Your task to perform on an android device: change the clock display to digital Image 0: 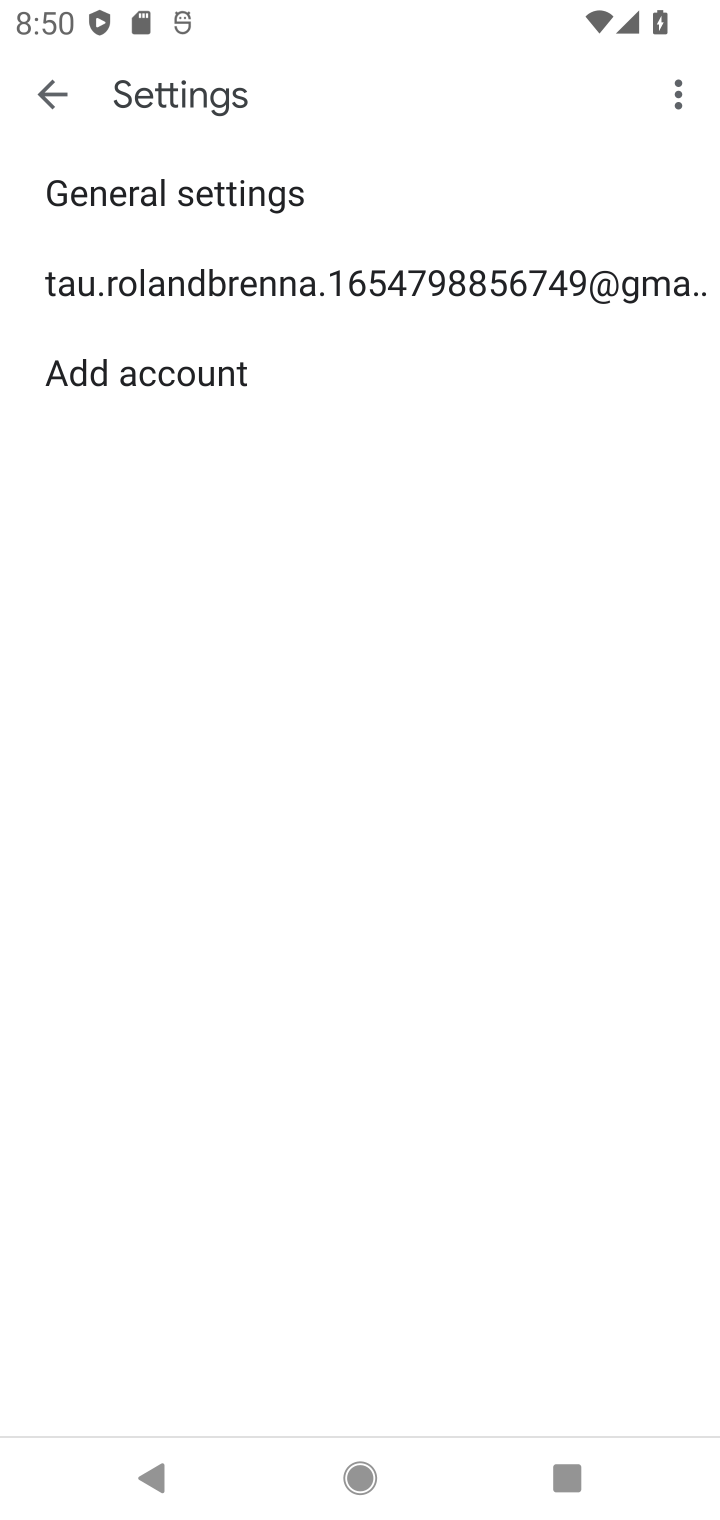
Step 0: press home button
Your task to perform on an android device: change the clock display to digital Image 1: 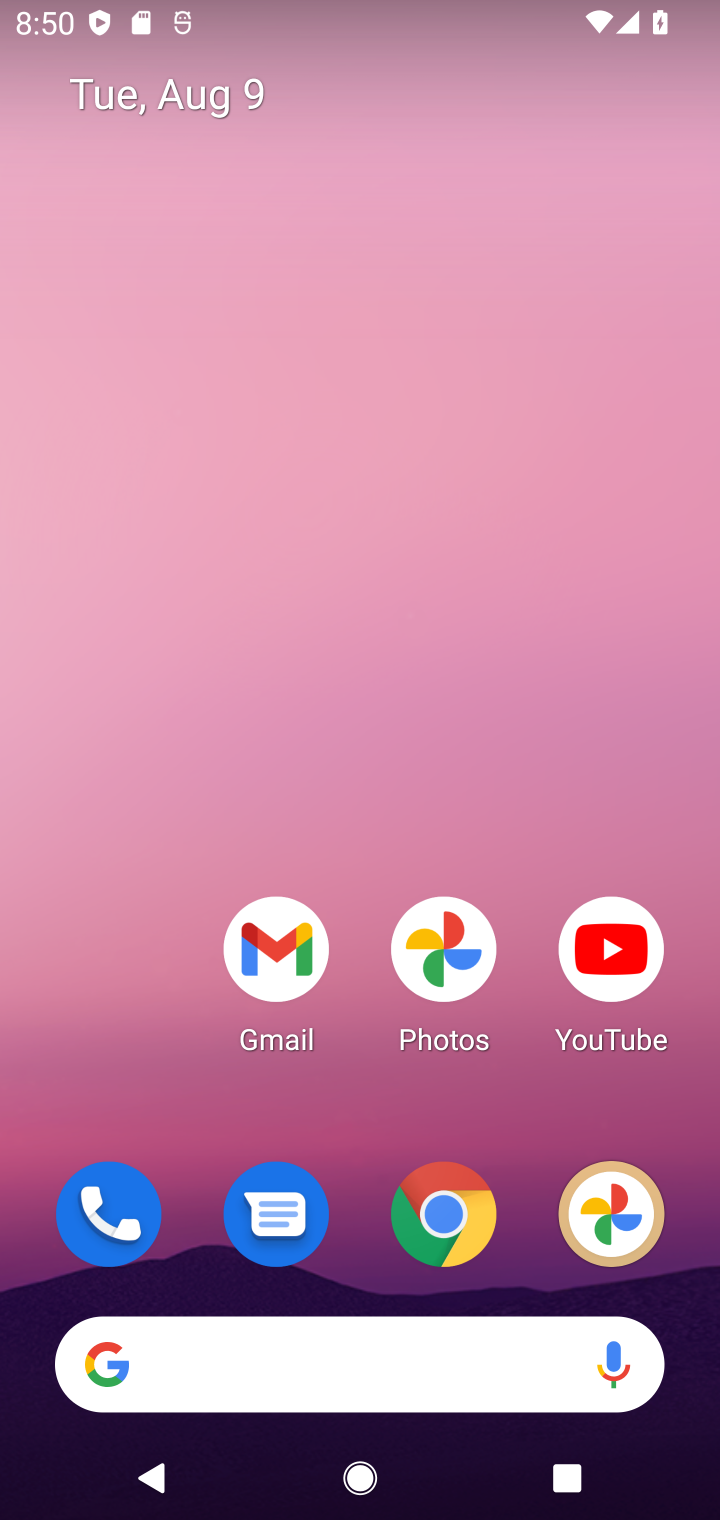
Step 1: drag from (70, 1462) to (458, 488)
Your task to perform on an android device: change the clock display to digital Image 2: 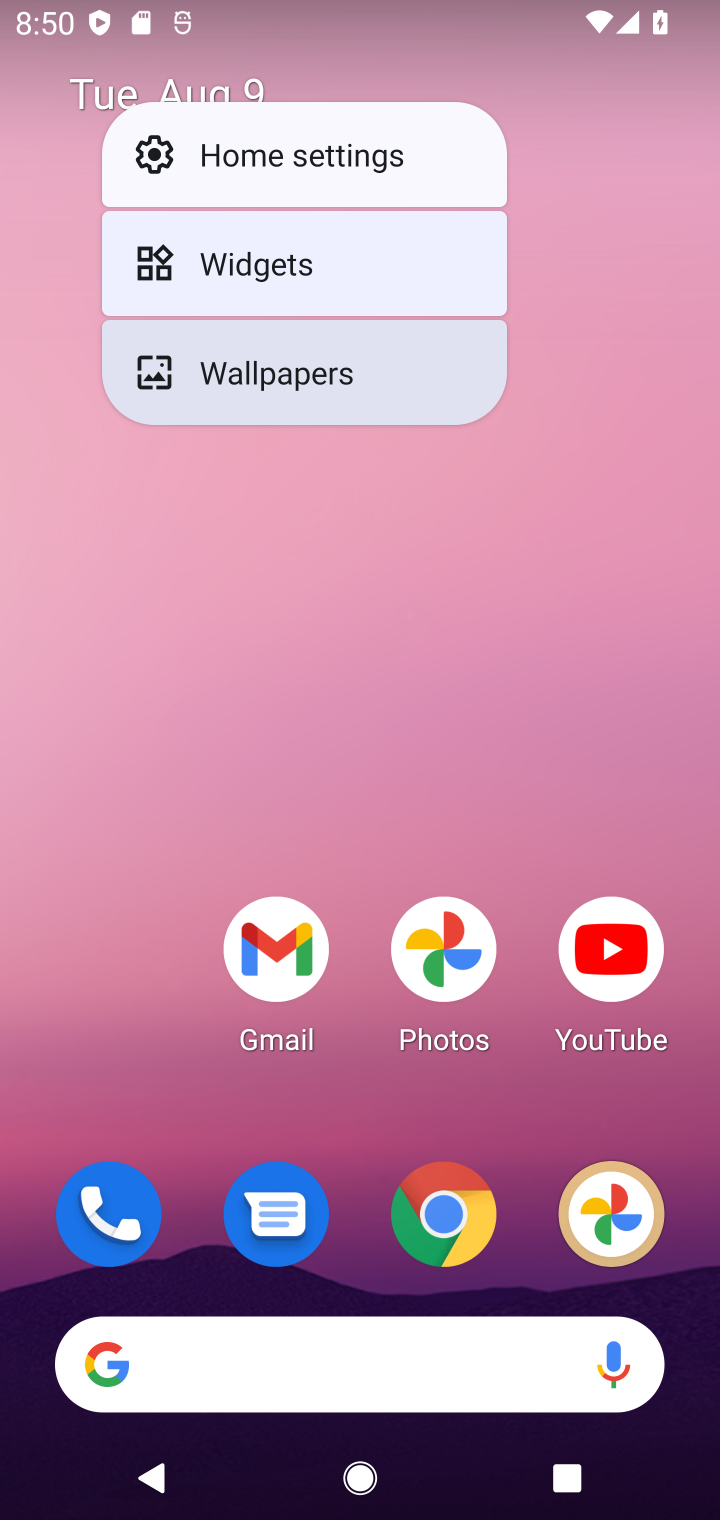
Step 2: drag from (93, 1425) to (425, 310)
Your task to perform on an android device: change the clock display to digital Image 3: 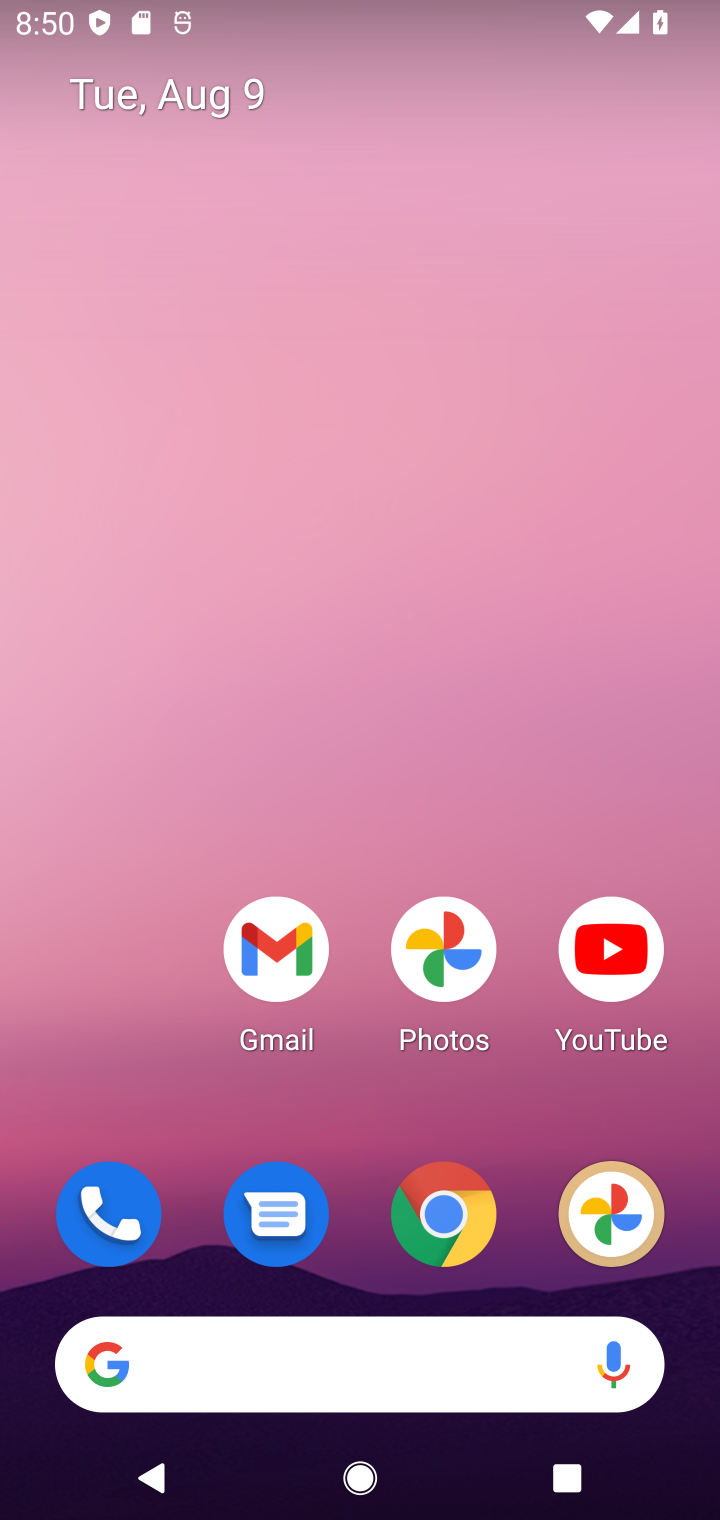
Step 3: drag from (69, 1421) to (557, 440)
Your task to perform on an android device: change the clock display to digital Image 4: 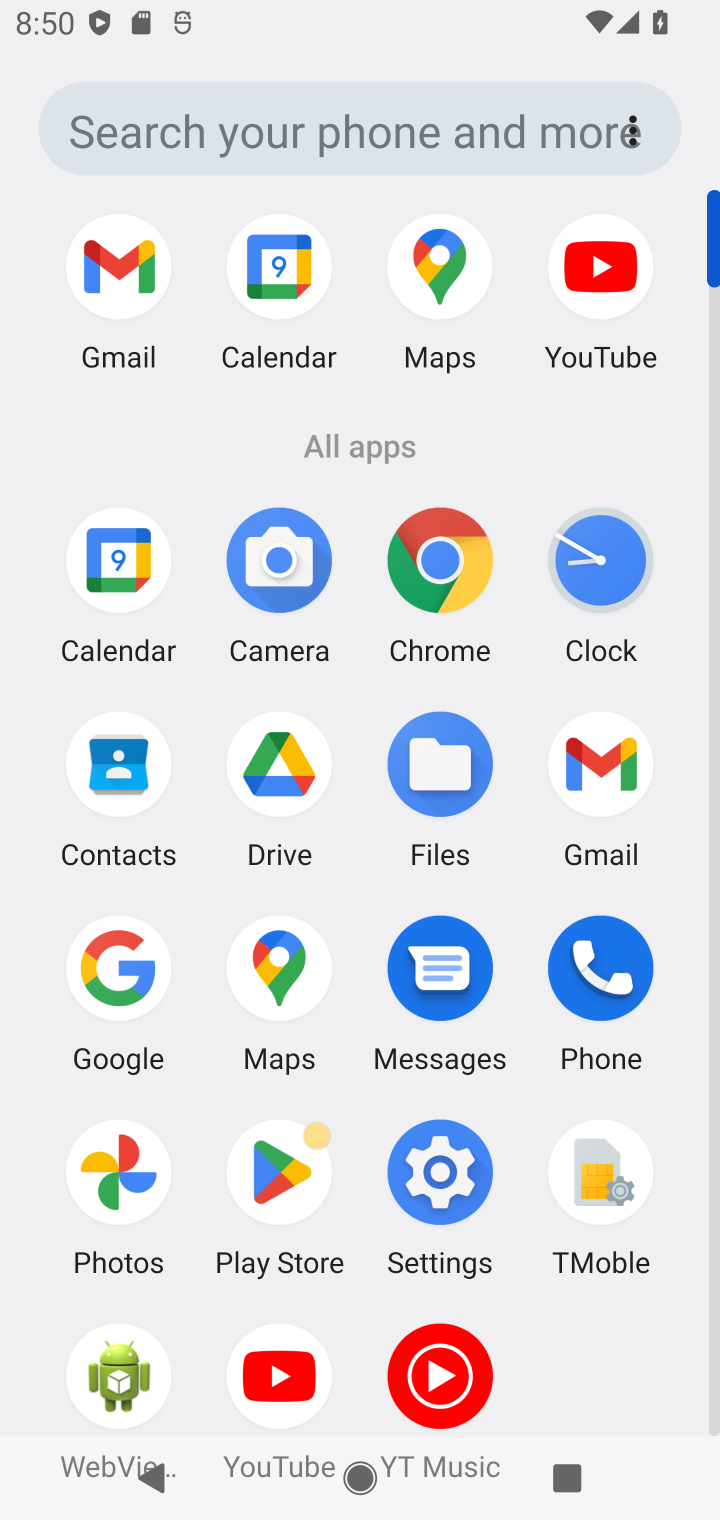
Step 4: click (577, 558)
Your task to perform on an android device: change the clock display to digital Image 5: 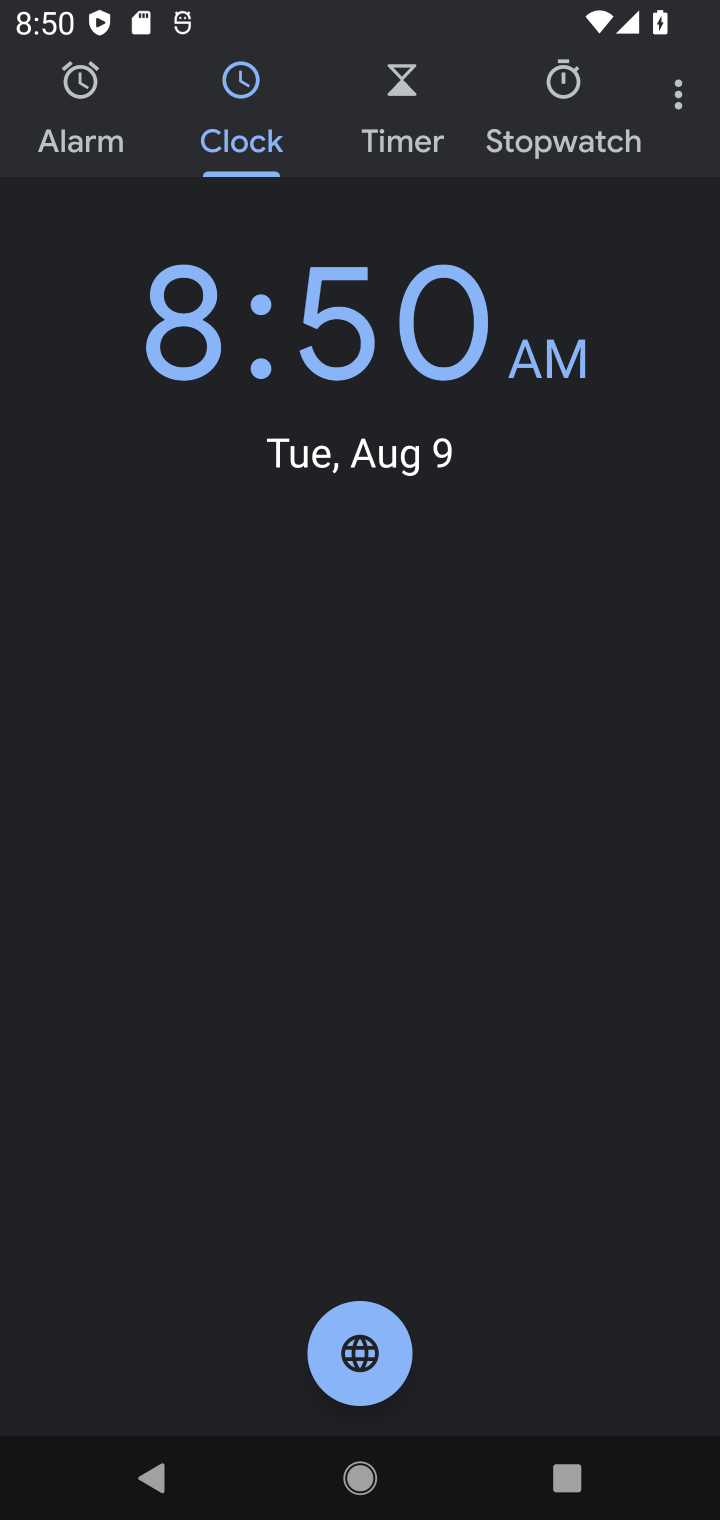
Step 5: click (684, 74)
Your task to perform on an android device: change the clock display to digital Image 6: 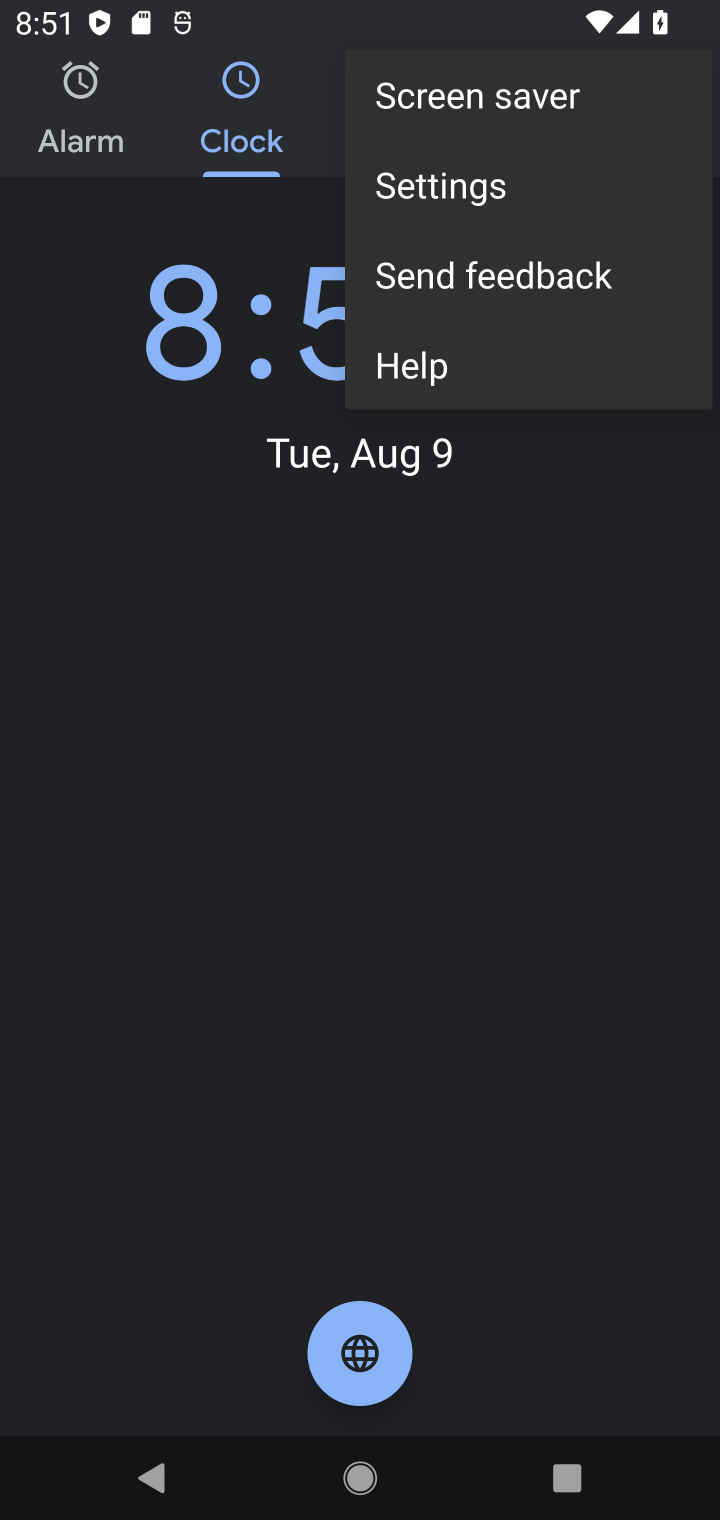
Step 6: click (425, 196)
Your task to perform on an android device: change the clock display to digital Image 7: 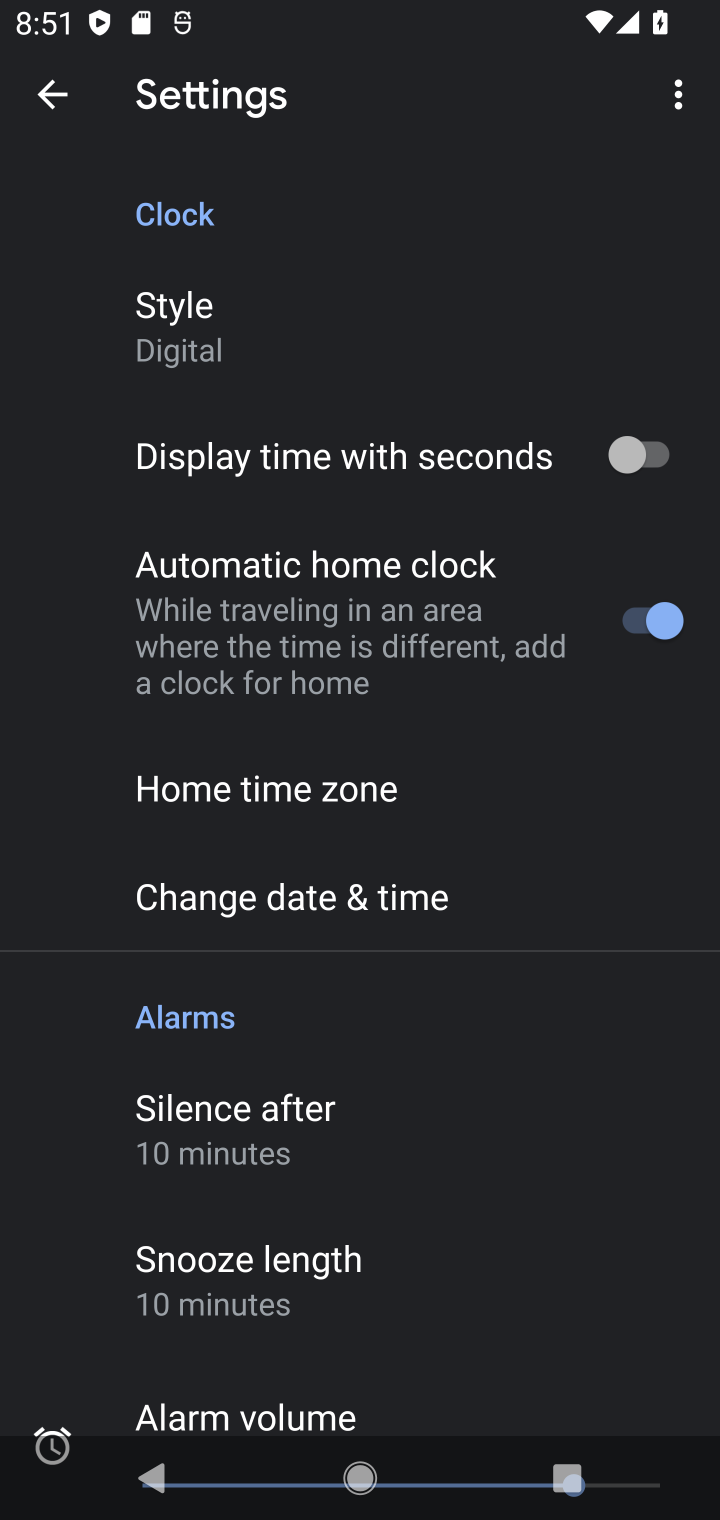
Step 7: click (251, 348)
Your task to perform on an android device: change the clock display to digital Image 8: 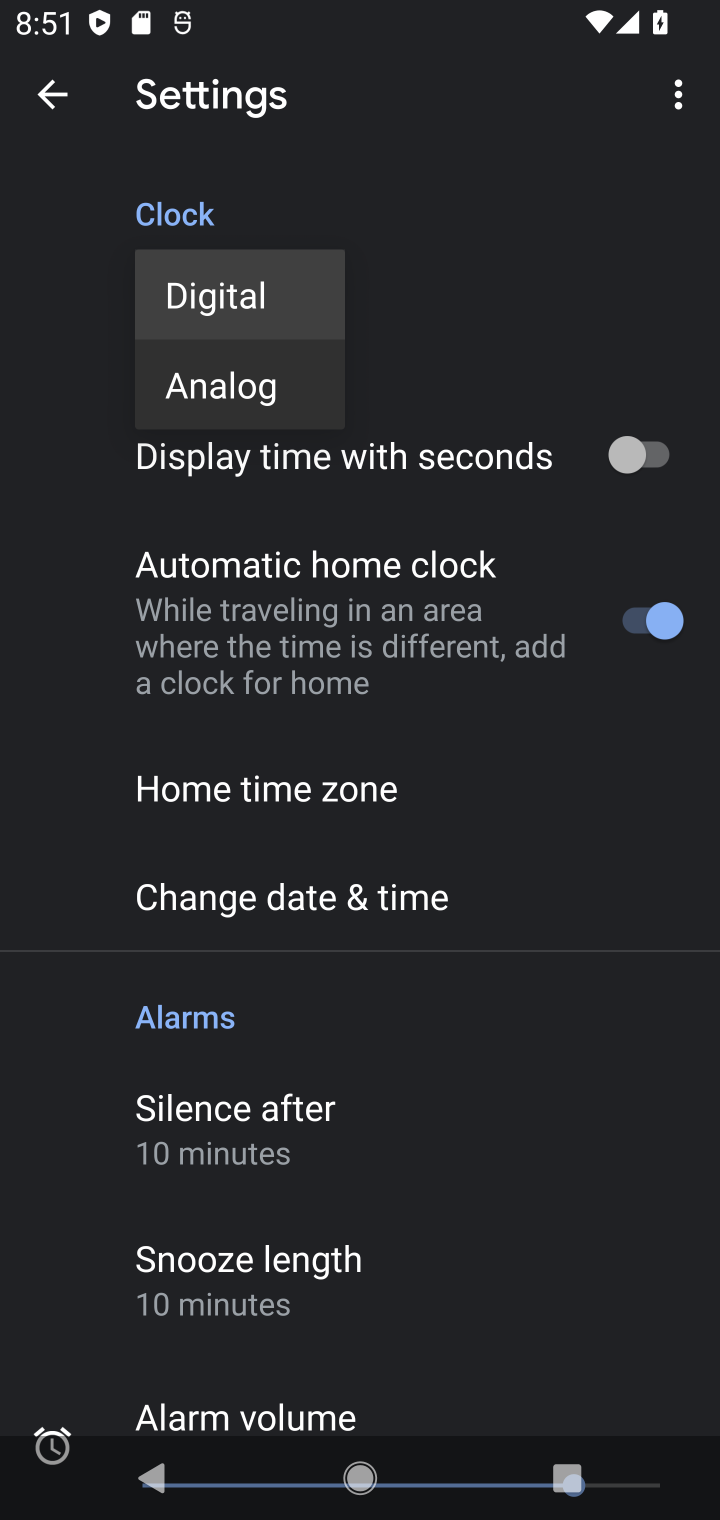
Step 8: click (259, 338)
Your task to perform on an android device: change the clock display to digital Image 9: 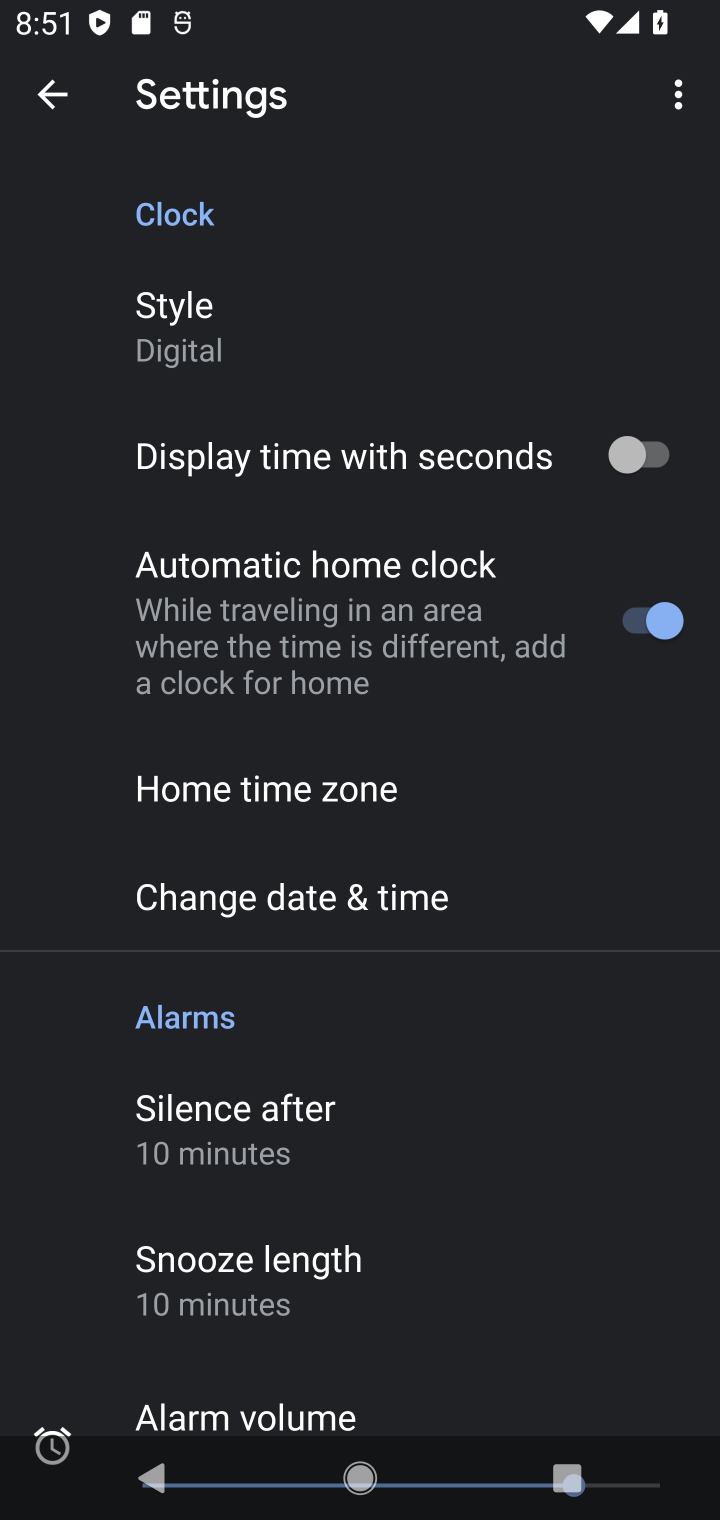
Step 9: task complete